Your task to perform on an android device: toggle notifications settings in the gmail app Image 0: 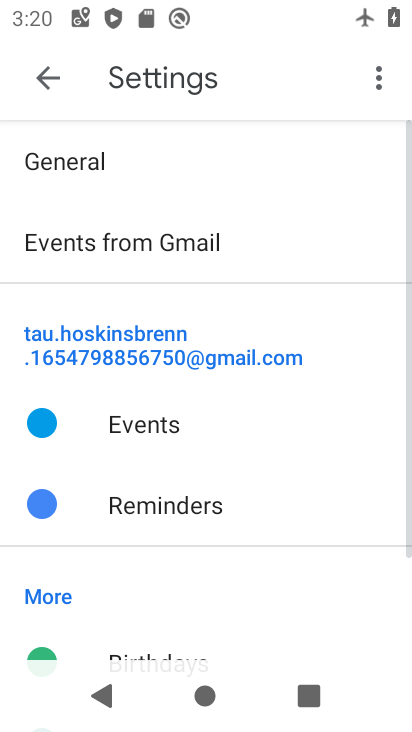
Step 0: press back button
Your task to perform on an android device: toggle notifications settings in the gmail app Image 1: 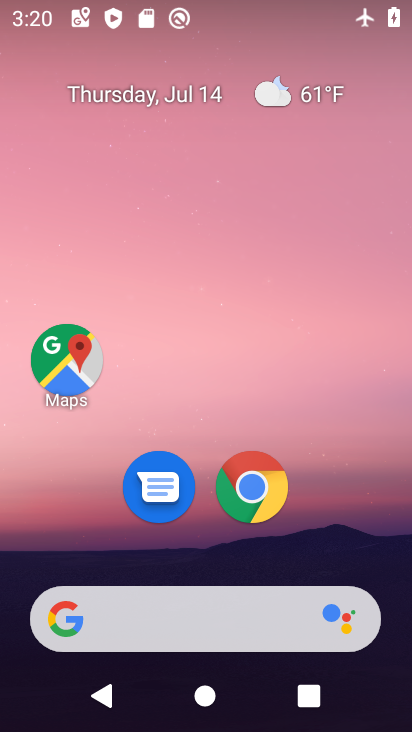
Step 1: drag from (194, 541) to (289, 60)
Your task to perform on an android device: toggle notifications settings in the gmail app Image 2: 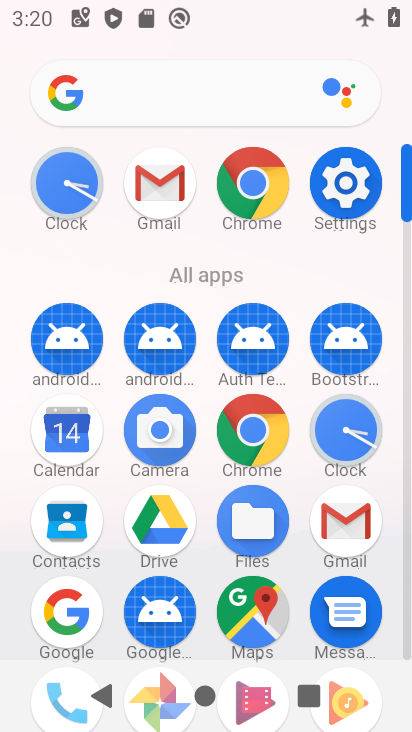
Step 2: click (160, 184)
Your task to perform on an android device: toggle notifications settings in the gmail app Image 3: 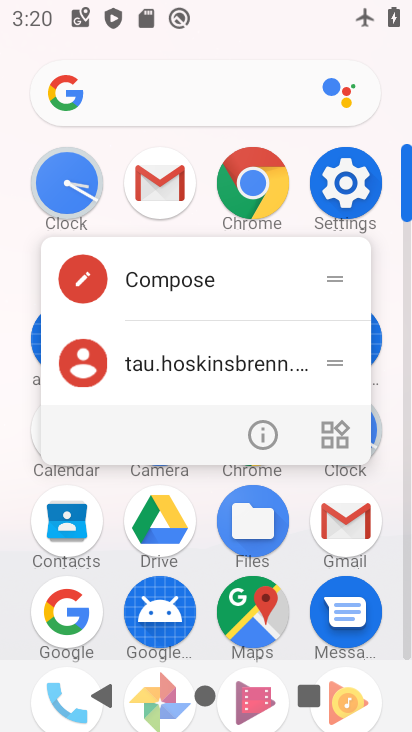
Step 3: click (263, 437)
Your task to perform on an android device: toggle notifications settings in the gmail app Image 4: 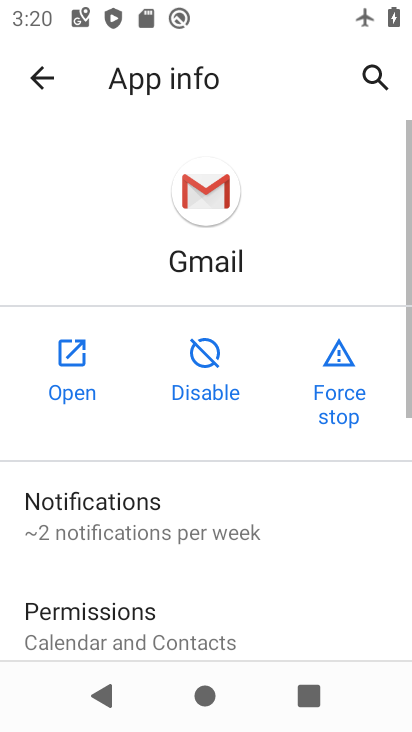
Step 4: click (143, 495)
Your task to perform on an android device: toggle notifications settings in the gmail app Image 5: 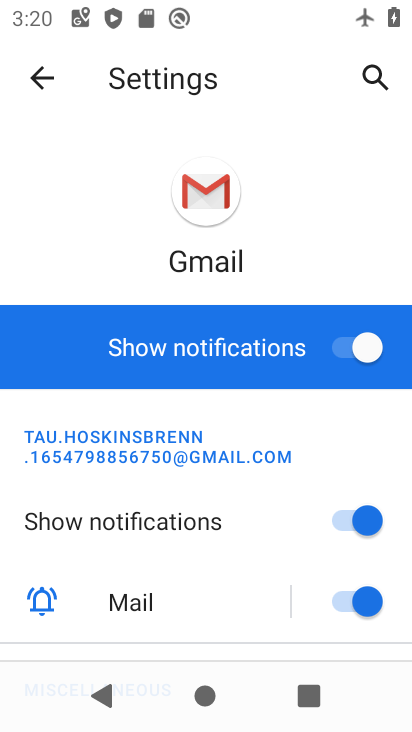
Step 5: click (363, 350)
Your task to perform on an android device: toggle notifications settings in the gmail app Image 6: 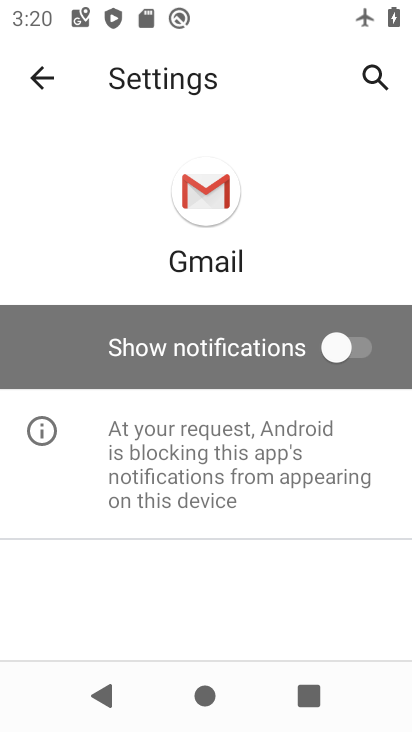
Step 6: task complete